Your task to perform on an android device: search for console tables on article.com Image 0: 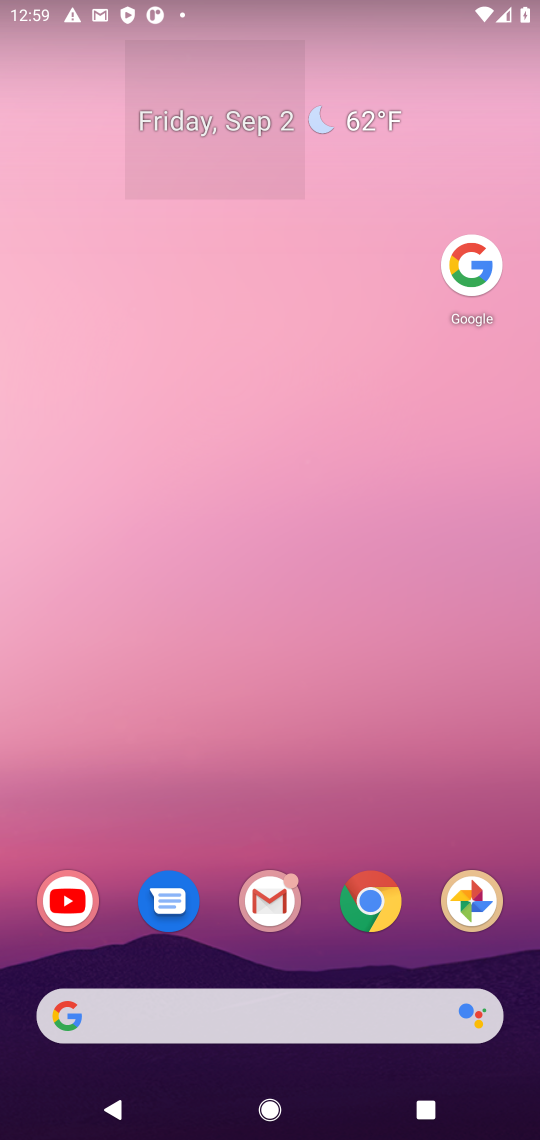
Step 0: drag from (258, 971) to (251, 368)
Your task to perform on an android device: search for console tables on article.com Image 1: 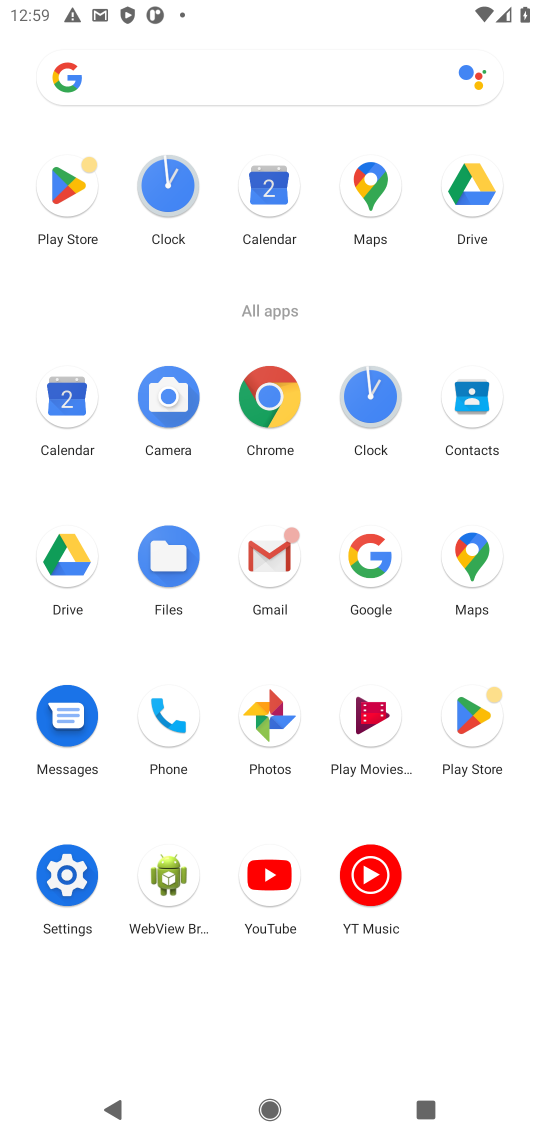
Step 1: click (369, 558)
Your task to perform on an android device: search for console tables on article.com Image 2: 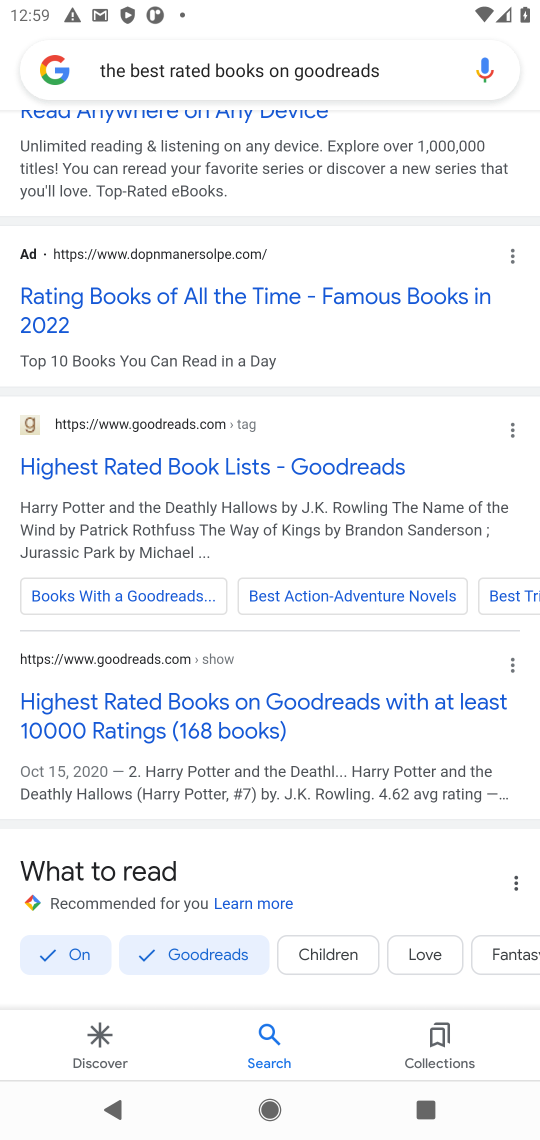
Step 2: click (366, 61)
Your task to perform on an android device: search for console tables on article.com Image 3: 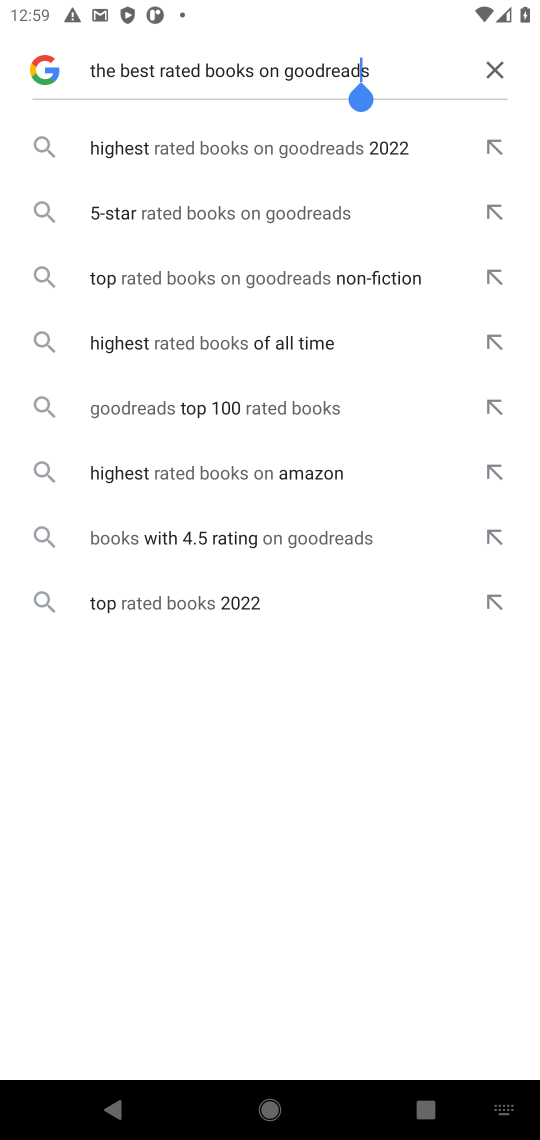
Step 3: click (457, 69)
Your task to perform on an android device: search for console tables on article.com Image 4: 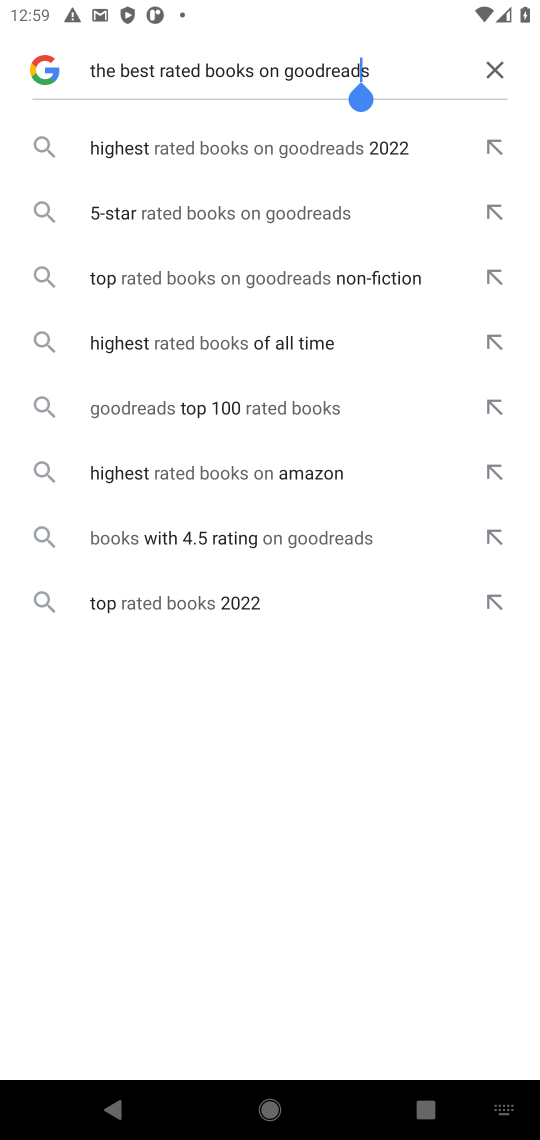
Step 4: click (501, 63)
Your task to perform on an android device: search for console tables on article.com Image 5: 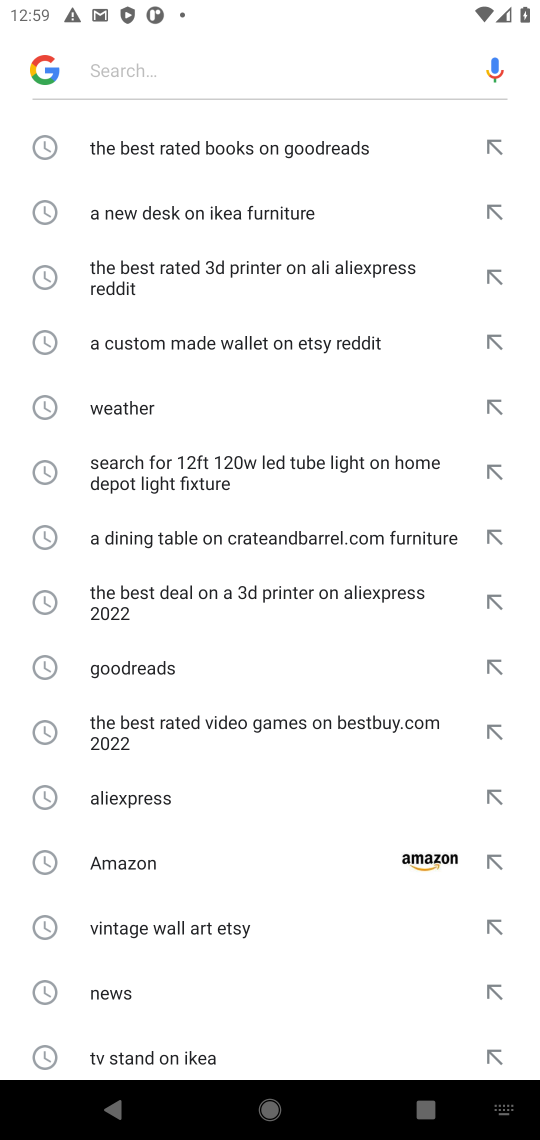
Step 5: click (238, 66)
Your task to perform on an android device: search for console tables on article.com Image 6: 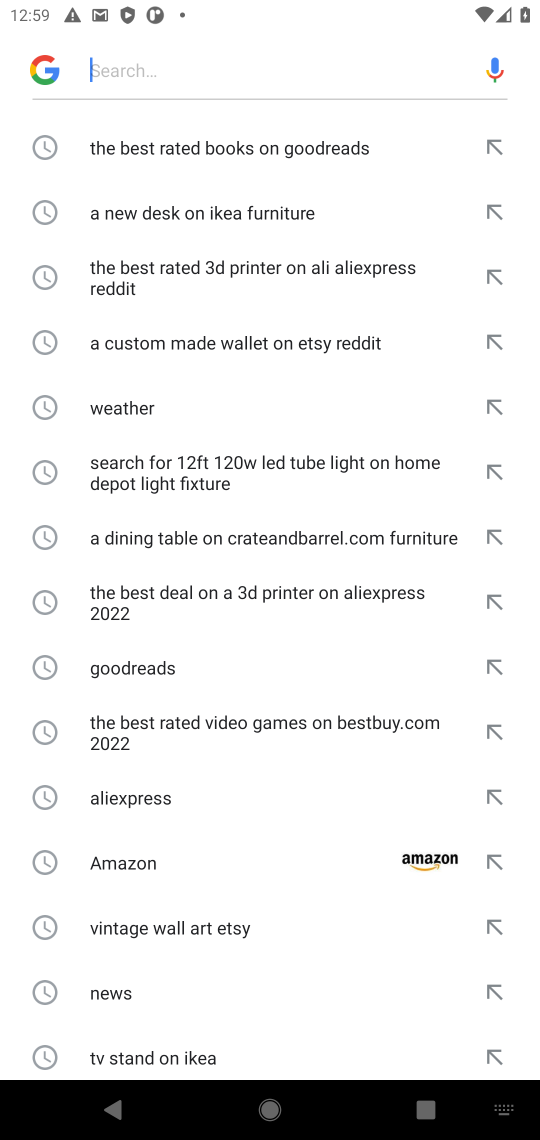
Step 6: type " console tables on article.com "
Your task to perform on an android device: search for console tables on article.com Image 7: 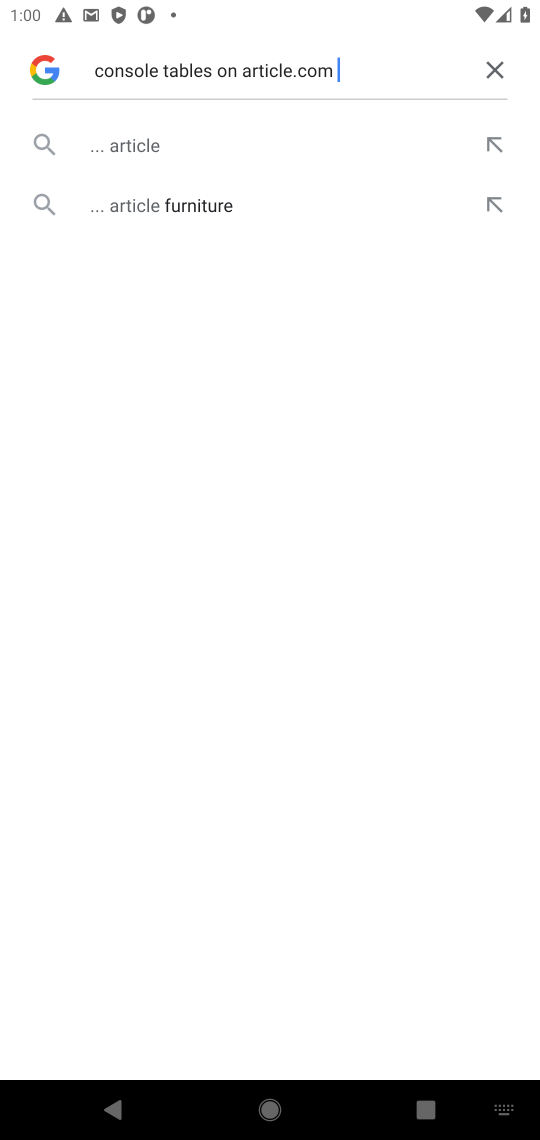
Step 7: click (161, 116)
Your task to perform on an android device: search for console tables on article.com Image 8: 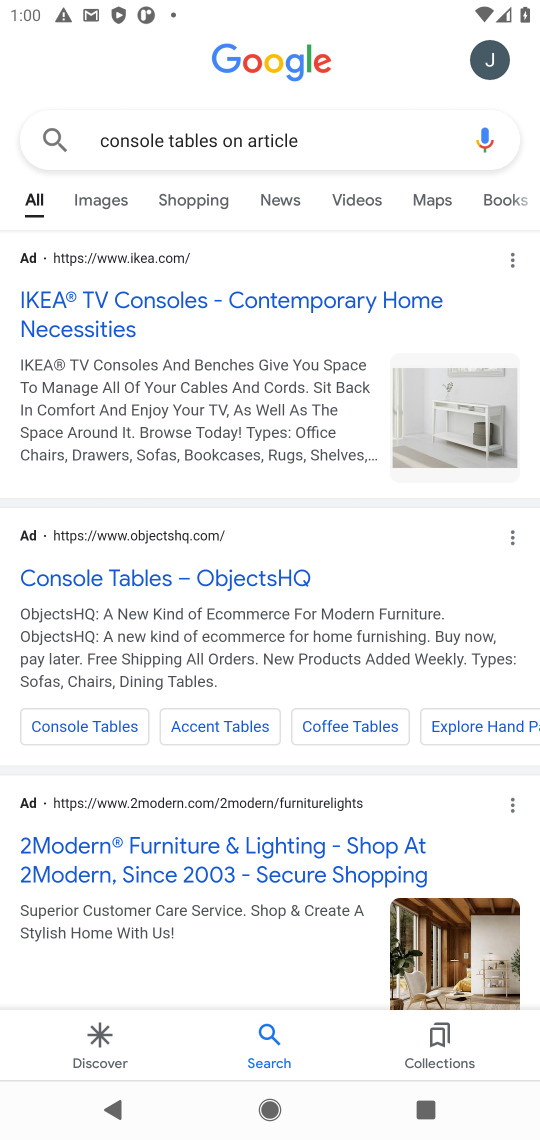
Step 8: drag from (285, 889) to (345, 410)
Your task to perform on an android device: search for console tables on article.com Image 9: 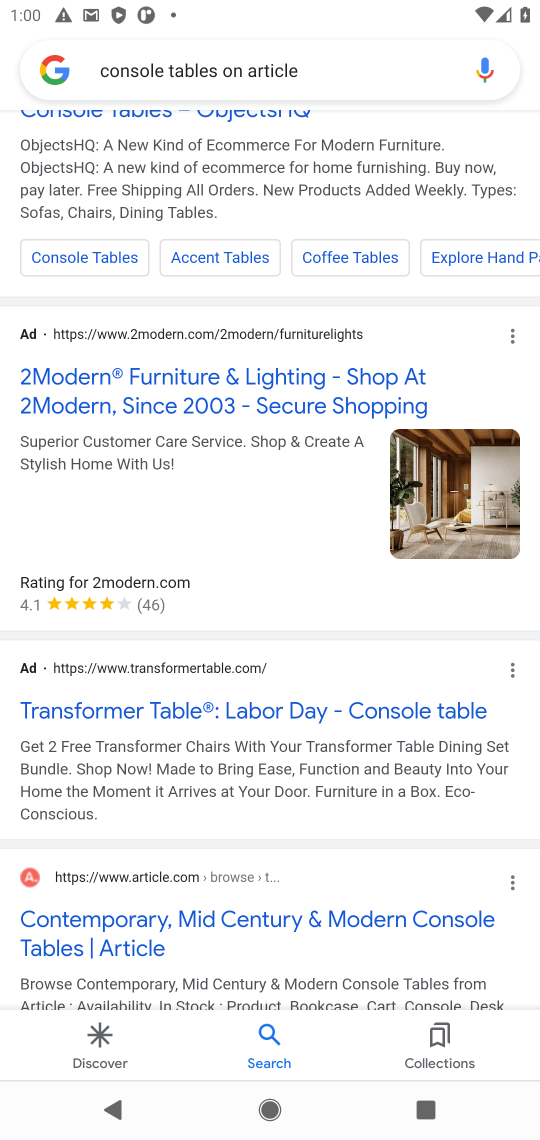
Step 9: click (84, 918)
Your task to perform on an android device: search for console tables on article.com Image 10: 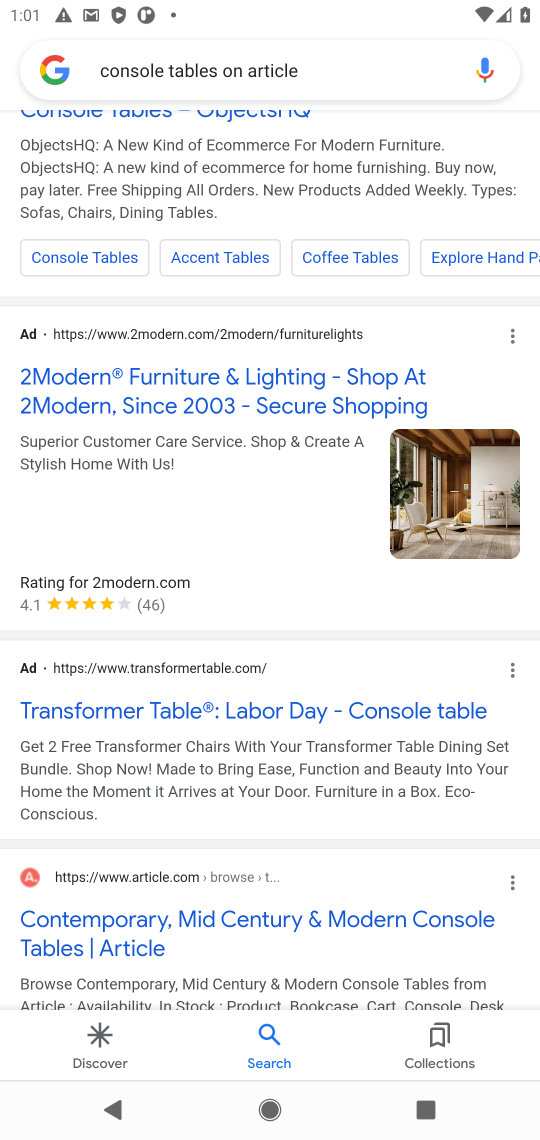
Step 10: drag from (224, 358) to (278, 227)
Your task to perform on an android device: search for console tables on article.com Image 11: 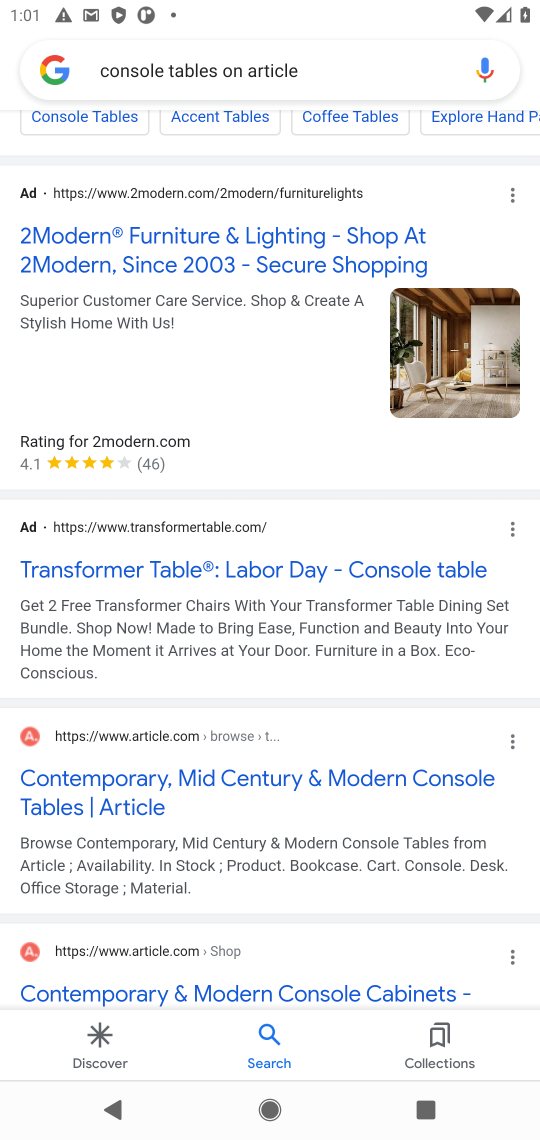
Step 11: click (100, 782)
Your task to perform on an android device: search for console tables on article.com Image 12: 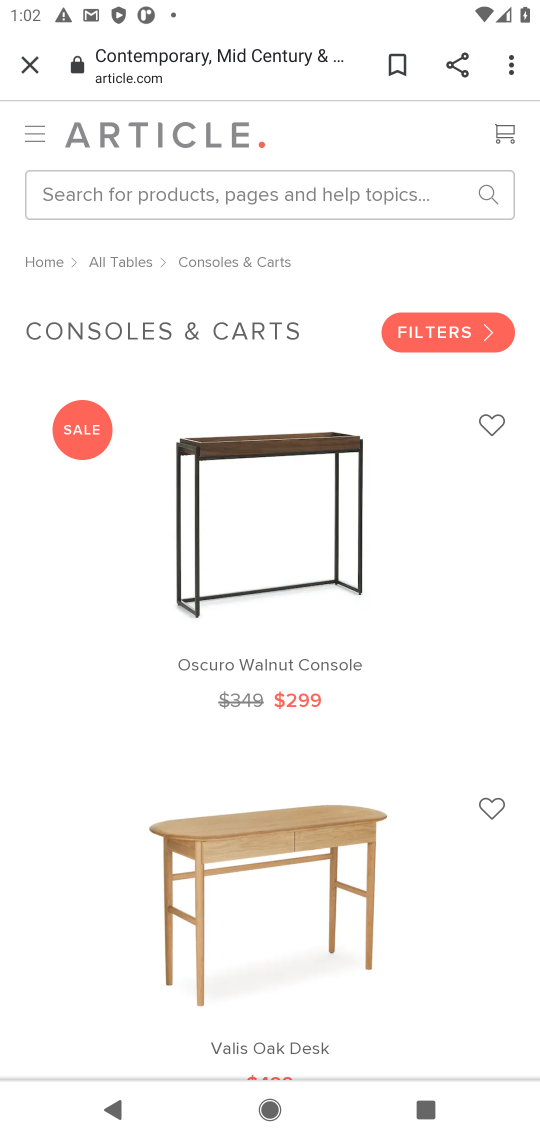
Step 12: task complete